Your task to perform on an android device: clear all cookies in the chrome app Image 0: 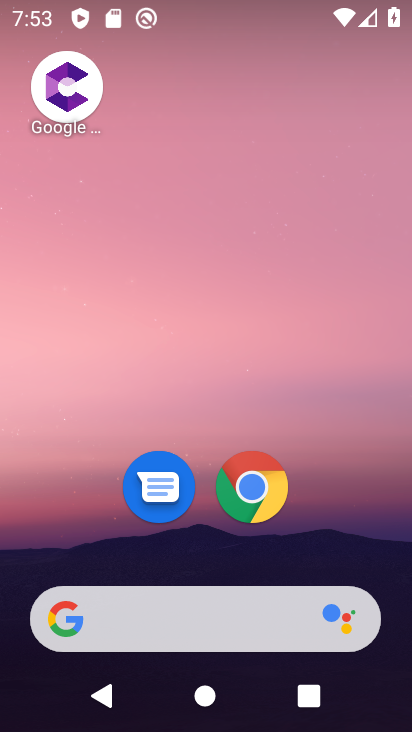
Step 0: click (261, 487)
Your task to perform on an android device: clear all cookies in the chrome app Image 1: 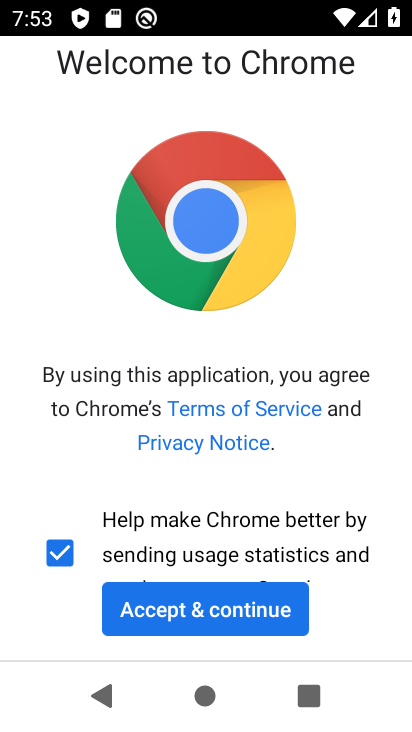
Step 1: click (196, 617)
Your task to perform on an android device: clear all cookies in the chrome app Image 2: 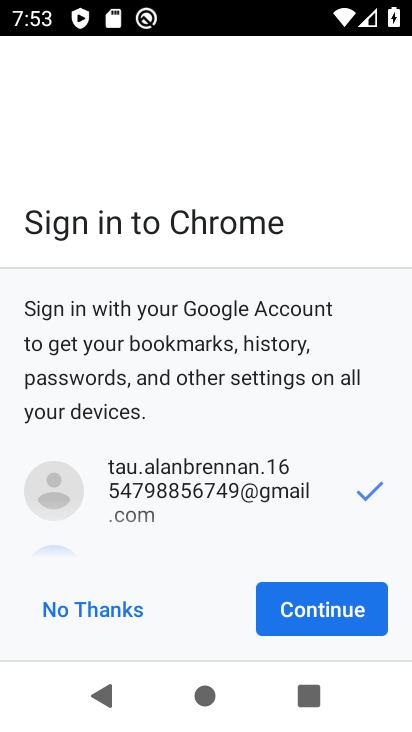
Step 2: click (308, 610)
Your task to perform on an android device: clear all cookies in the chrome app Image 3: 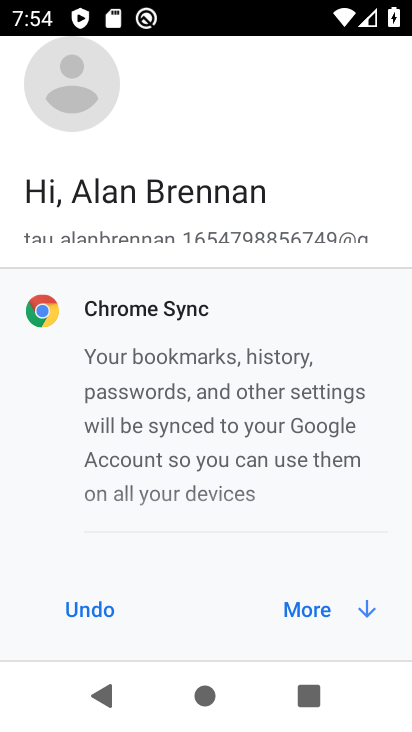
Step 3: click (332, 606)
Your task to perform on an android device: clear all cookies in the chrome app Image 4: 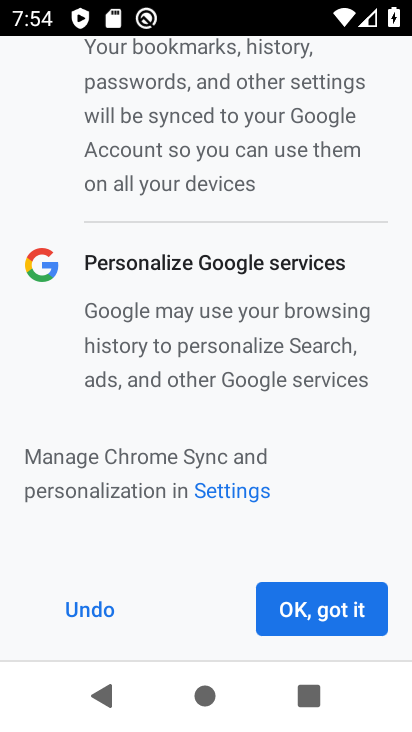
Step 4: click (329, 614)
Your task to perform on an android device: clear all cookies in the chrome app Image 5: 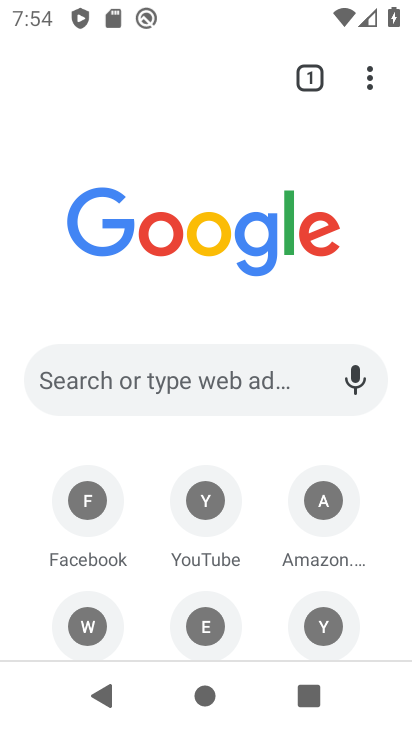
Step 5: drag from (364, 72) to (105, 428)
Your task to perform on an android device: clear all cookies in the chrome app Image 6: 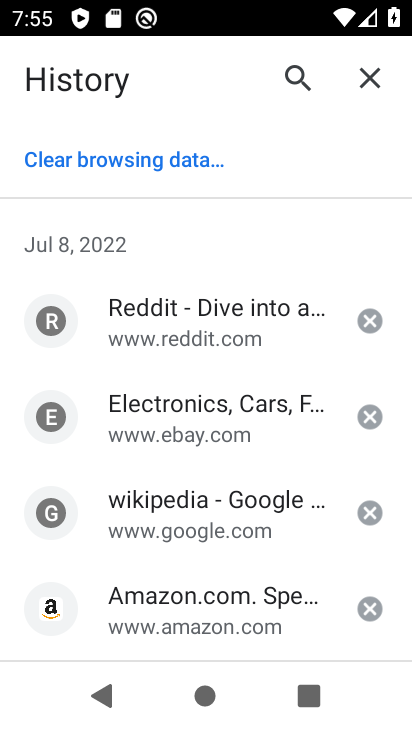
Step 6: click (85, 159)
Your task to perform on an android device: clear all cookies in the chrome app Image 7: 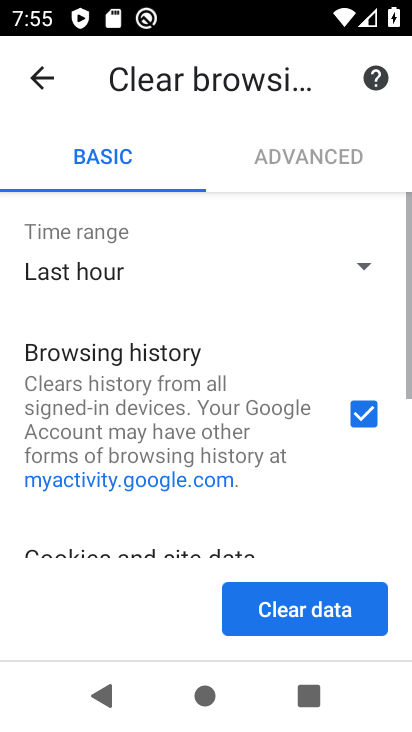
Step 7: drag from (197, 524) to (232, 373)
Your task to perform on an android device: clear all cookies in the chrome app Image 8: 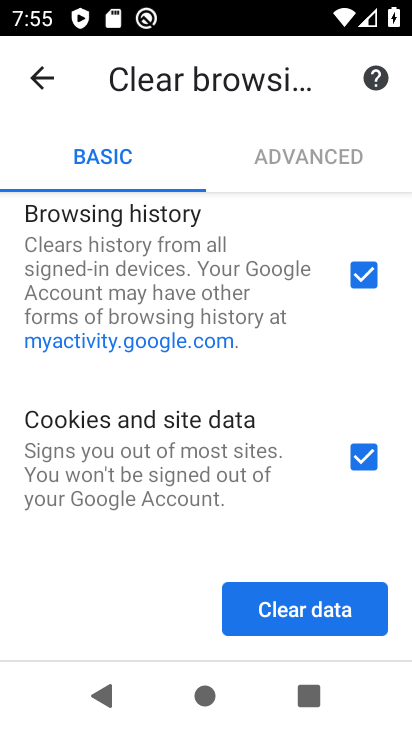
Step 8: click (371, 267)
Your task to perform on an android device: clear all cookies in the chrome app Image 9: 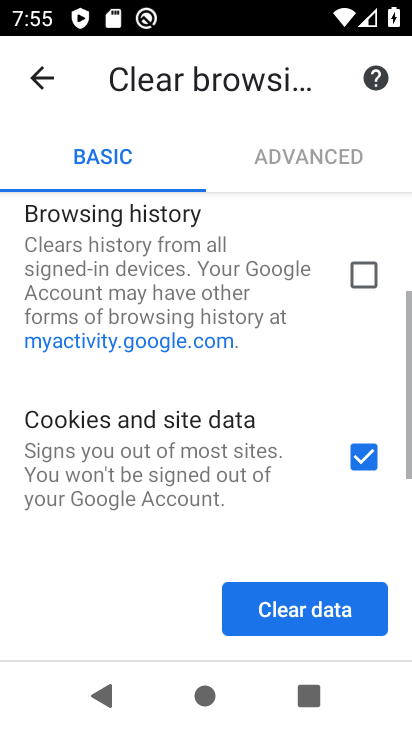
Step 9: drag from (164, 462) to (292, 145)
Your task to perform on an android device: clear all cookies in the chrome app Image 10: 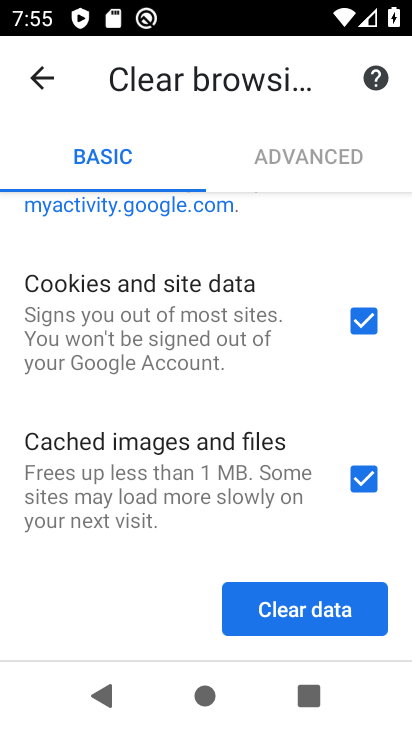
Step 10: click (367, 473)
Your task to perform on an android device: clear all cookies in the chrome app Image 11: 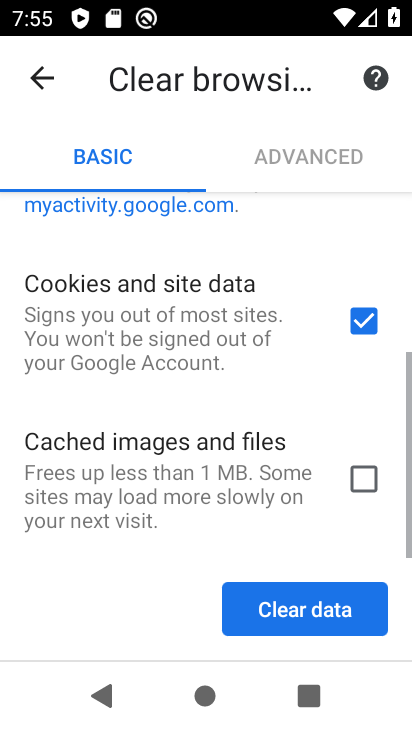
Step 11: click (308, 623)
Your task to perform on an android device: clear all cookies in the chrome app Image 12: 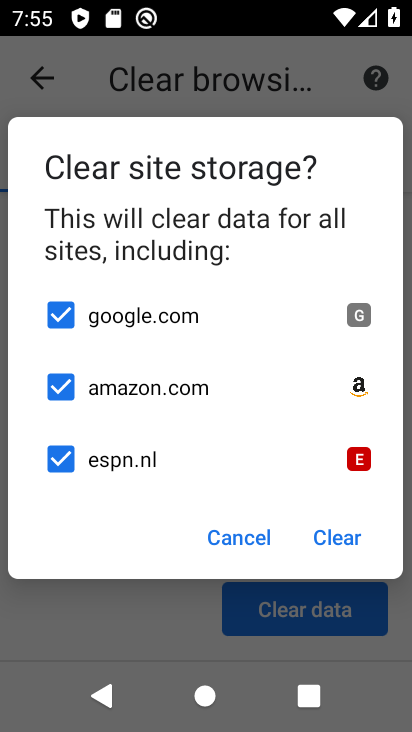
Step 12: click (335, 532)
Your task to perform on an android device: clear all cookies in the chrome app Image 13: 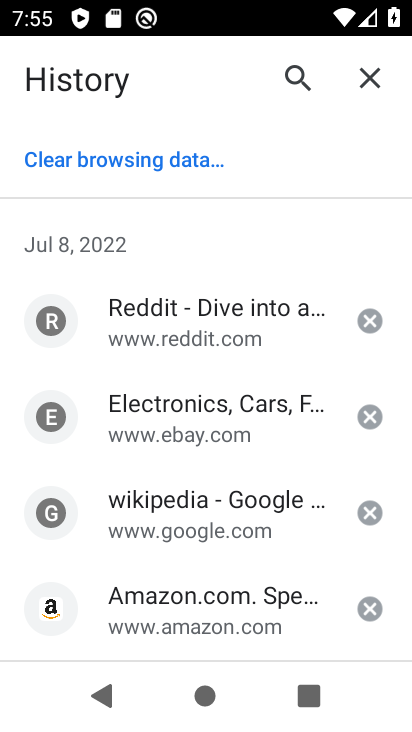
Step 13: task complete